Your task to perform on an android device: Open maps Image 0: 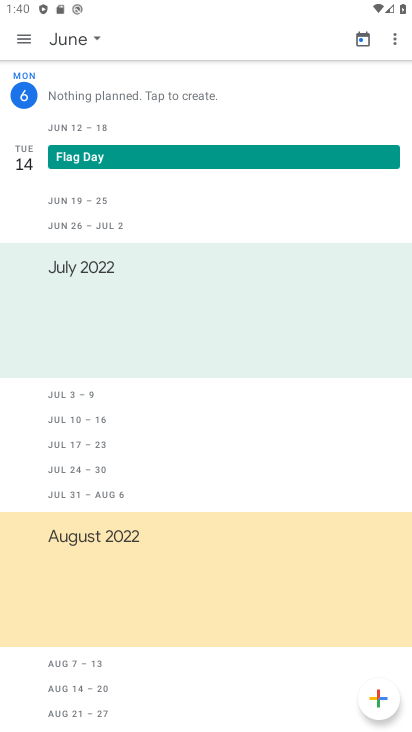
Step 0: press home button
Your task to perform on an android device: Open maps Image 1: 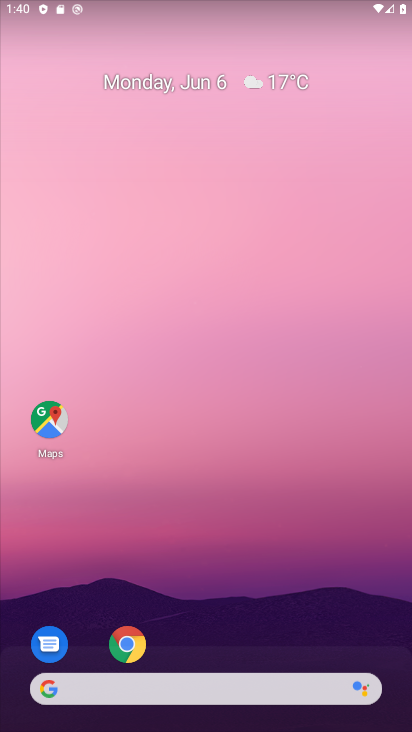
Step 1: click (62, 429)
Your task to perform on an android device: Open maps Image 2: 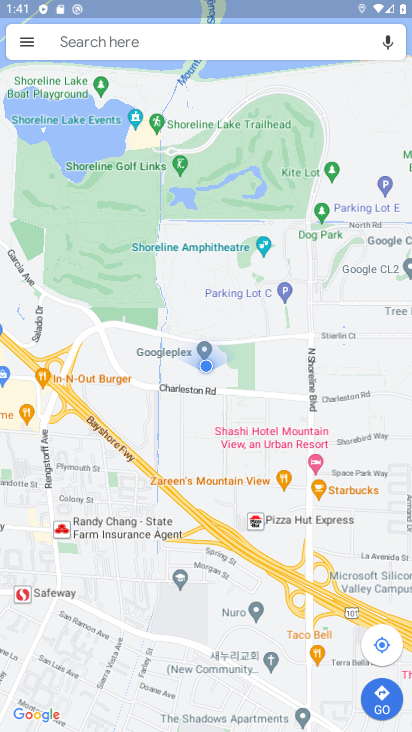
Step 2: task complete